Your task to perform on an android device: toggle javascript in the chrome app Image 0: 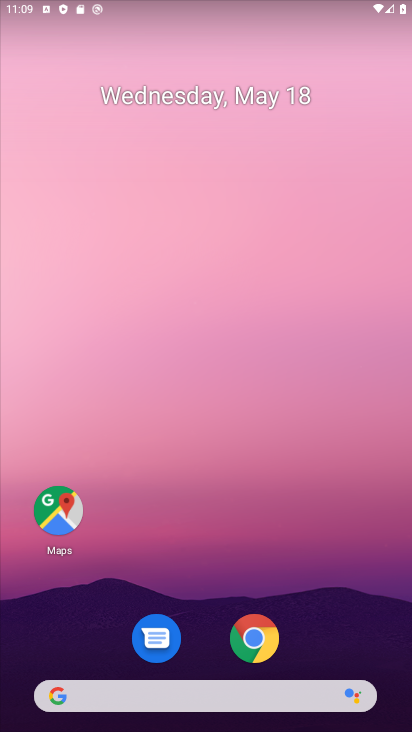
Step 0: drag from (337, 626) to (304, 87)
Your task to perform on an android device: toggle javascript in the chrome app Image 1: 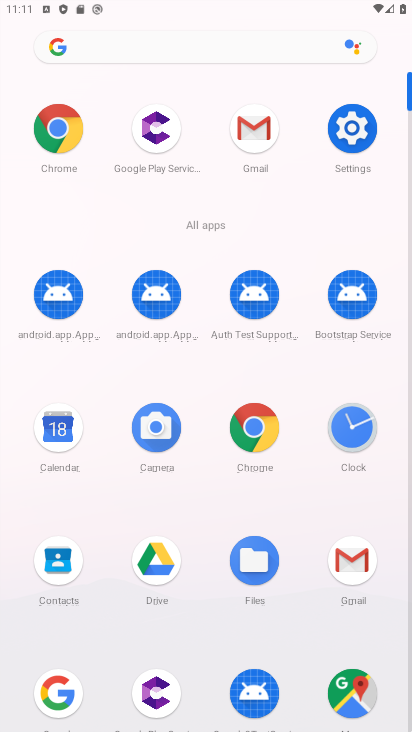
Step 1: click (258, 394)
Your task to perform on an android device: toggle javascript in the chrome app Image 2: 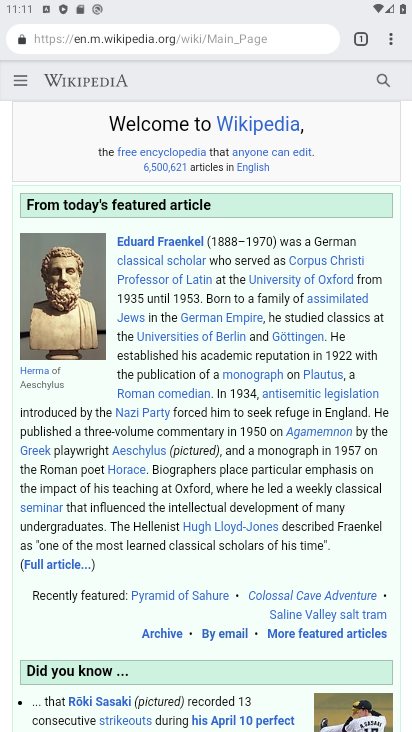
Step 2: press back button
Your task to perform on an android device: toggle javascript in the chrome app Image 3: 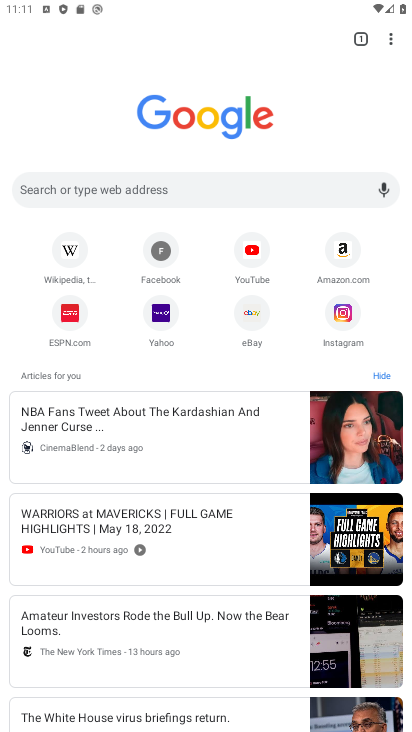
Step 3: click (390, 40)
Your task to perform on an android device: toggle javascript in the chrome app Image 4: 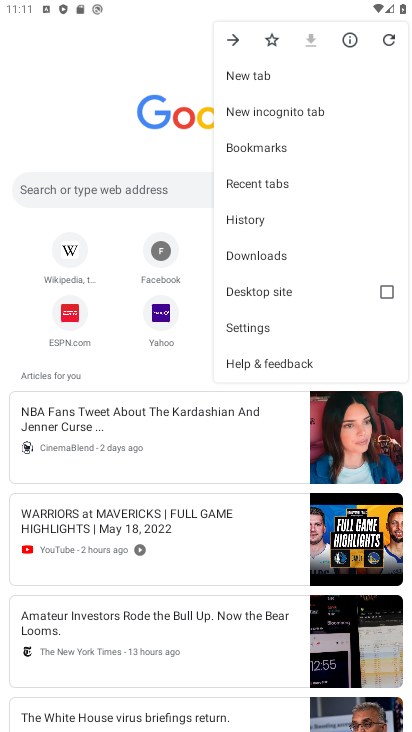
Step 4: click (284, 331)
Your task to perform on an android device: toggle javascript in the chrome app Image 5: 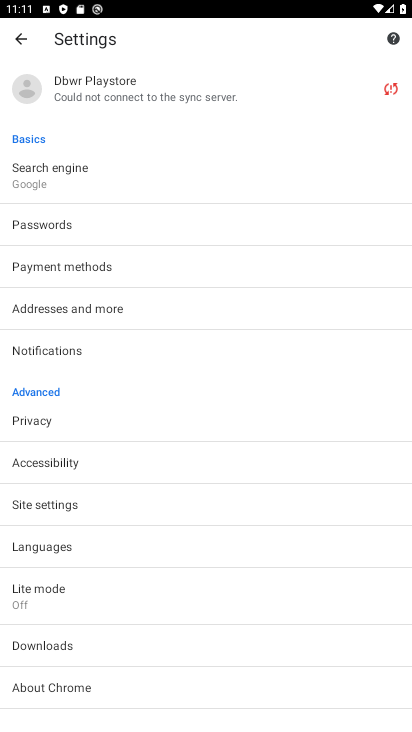
Step 5: click (76, 504)
Your task to perform on an android device: toggle javascript in the chrome app Image 6: 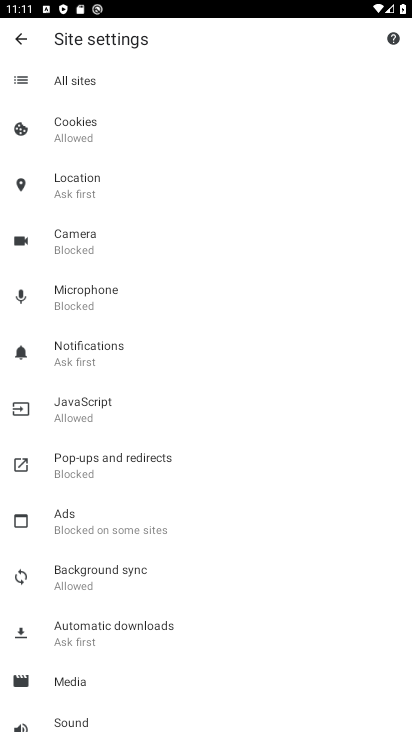
Step 6: click (130, 403)
Your task to perform on an android device: toggle javascript in the chrome app Image 7: 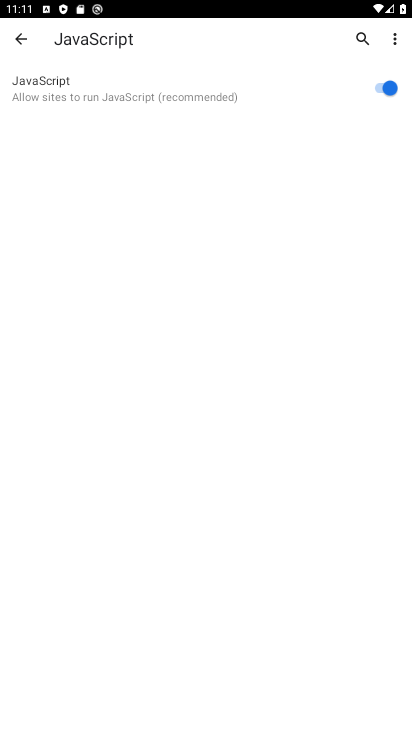
Step 7: click (370, 77)
Your task to perform on an android device: toggle javascript in the chrome app Image 8: 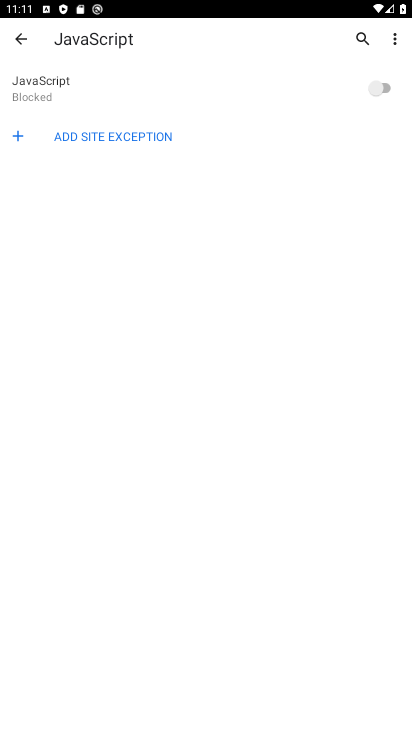
Step 8: task complete